Your task to perform on an android device: toggle javascript in the chrome app Image 0: 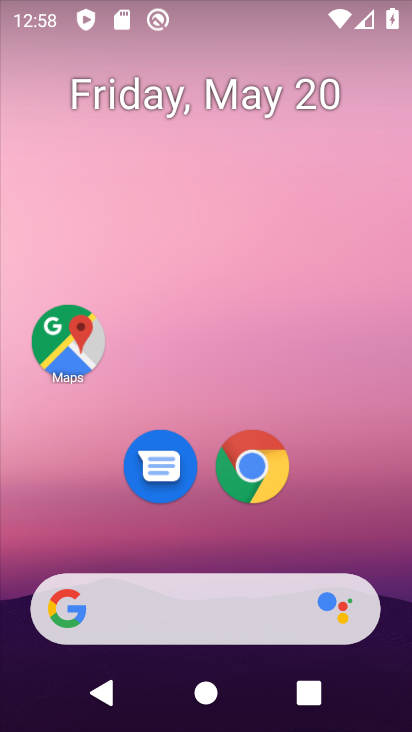
Step 0: click (249, 470)
Your task to perform on an android device: toggle javascript in the chrome app Image 1: 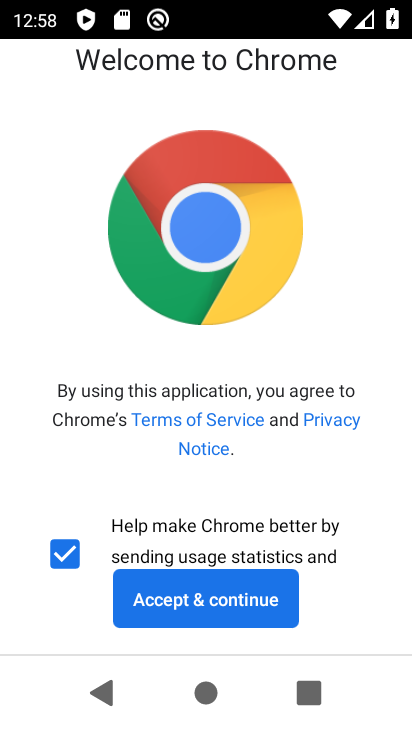
Step 1: click (225, 589)
Your task to perform on an android device: toggle javascript in the chrome app Image 2: 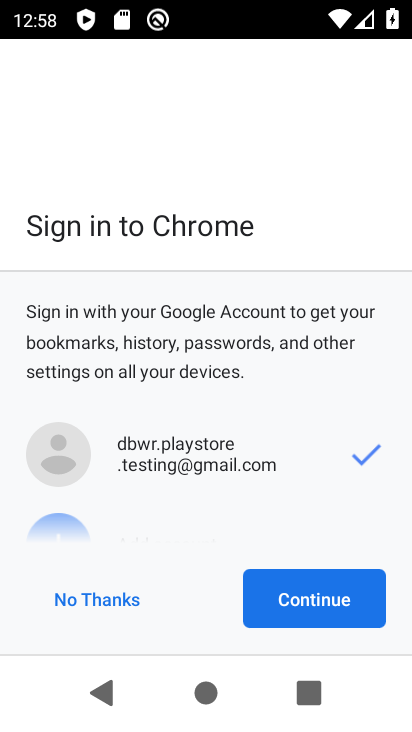
Step 2: click (318, 600)
Your task to perform on an android device: toggle javascript in the chrome app Image 3: 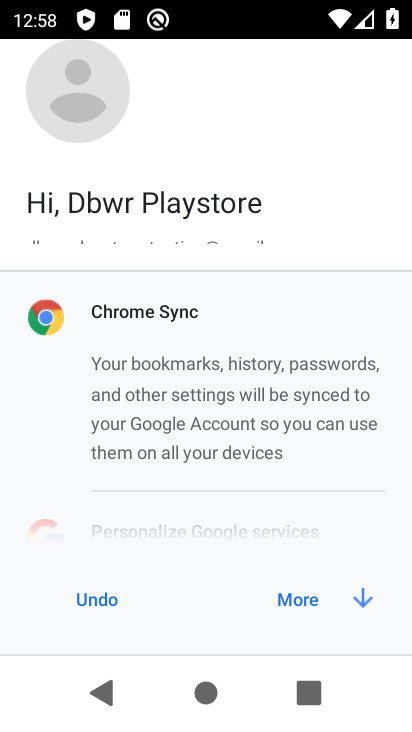
Step 3: click (322, 599)
Your task to perform on an android device: toggle javascript in the chrome app Image 4: 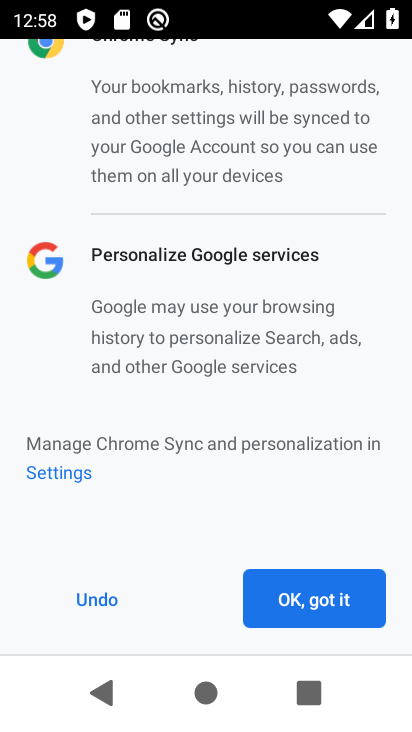
Step 4: click (322, 599)
Your task to perform on an android device: toggle javascript in the chrome app Image 5: 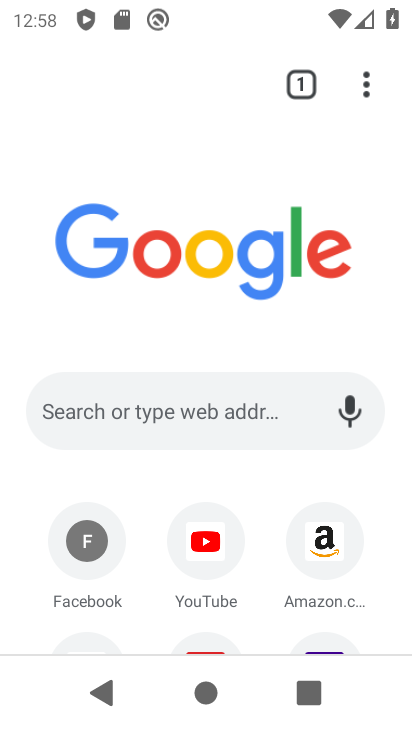
Step 5: click (371, 89)
Your task to perform on an android device: toggle javascript in the chrome app Image 6: 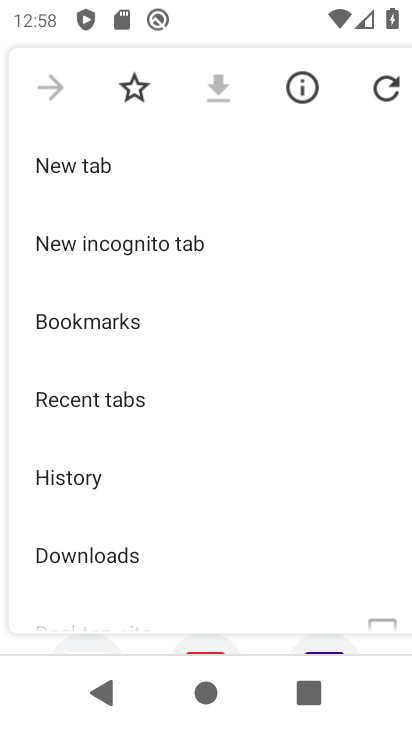
Step 6: drag from (217, 531) to (222, 253)
Your task to perform on an android device: toggle javascript in the chrome app Image 7: 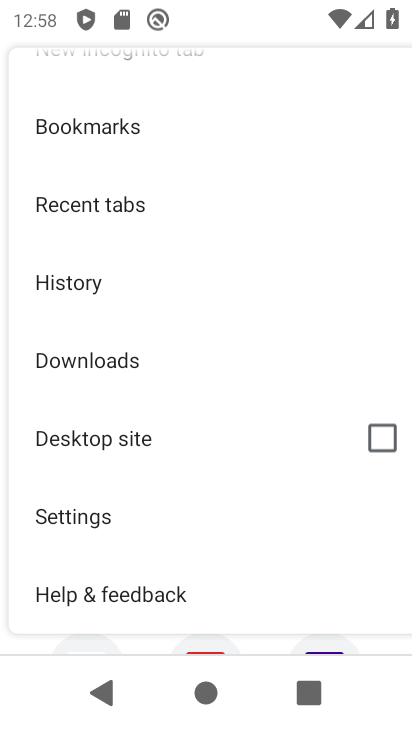
Step 7: click (159, 521)
Your task to perform on an android device: toggle javascript in the chrome app Image 8: 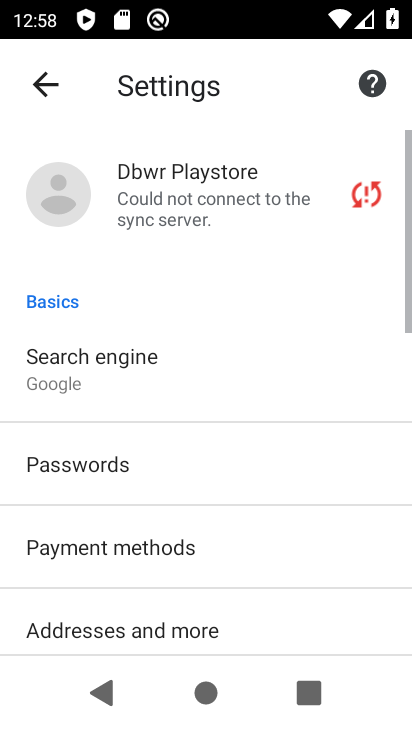
Step 8: drag from (229, 608) to (230, 238)
Your task to perform on an android device: toggle javascript in the chrome app Image 9: 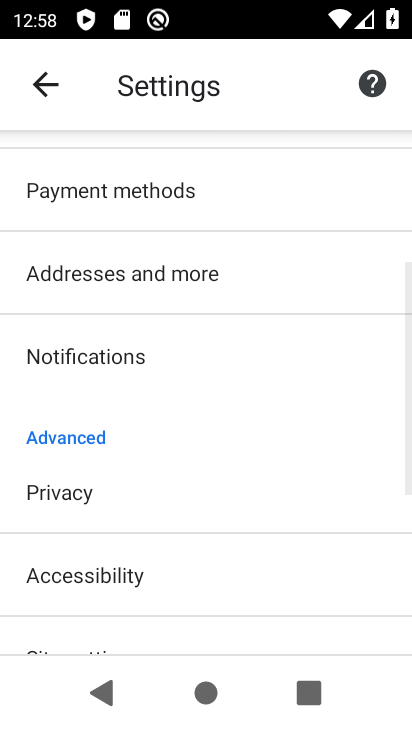
Step 9: drag from (209, 481) to (207, 276)
Your task to perform on an android device: toggle javascript in the chrome app Image 10: 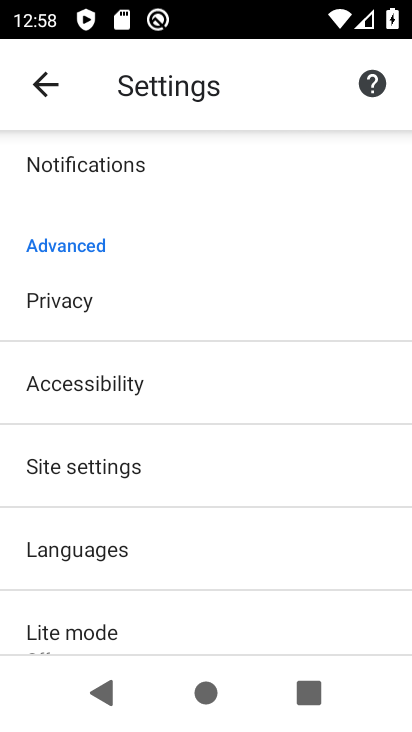
Step 10: drag from (164, 584) to (178, 299)
Your task to perform on an android device: toggle javascript in the chrome app Image 11: 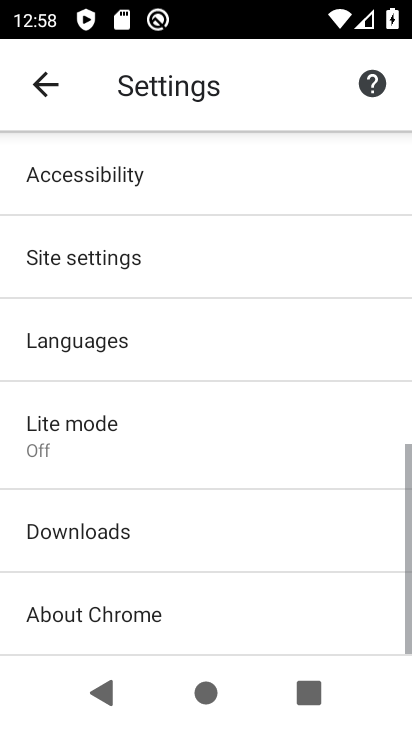
Step 11: drag from (190, 598) to (196, 407)
Your task to perform on an android device: toggle javascript in the chrome app Image 12: 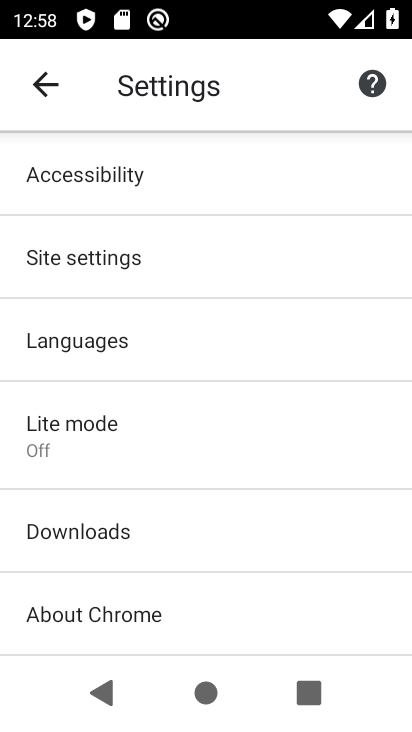
Step 12: drag from (201, 592) to (218, 309)
Your task to perform on an android device: toggle javascript in the chrome app Image 13: 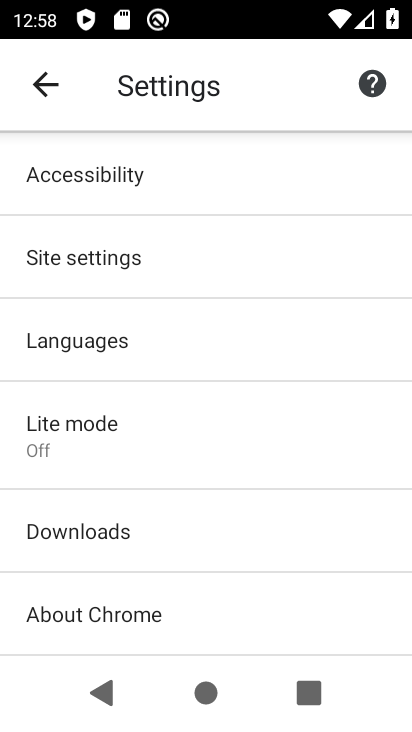
Step 13: drag from (187, 542) to (194, 316)
Your task to perform on an android device: toggle javascript in the chrome app Image 14: 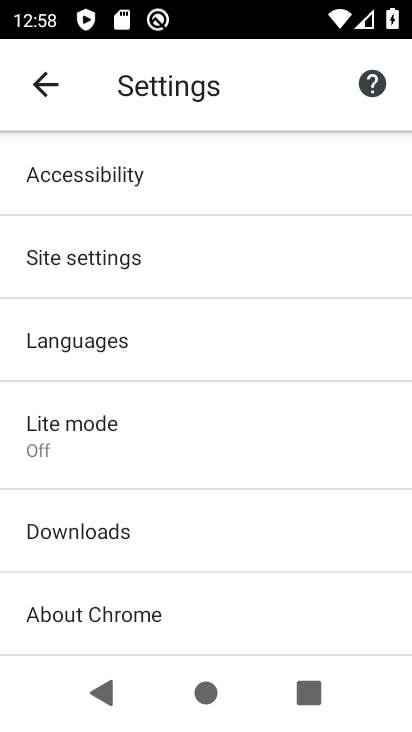
Step 14: click (196, 254)
Your task to perform on an android device: toggle javascript in the chrome app Image 15: 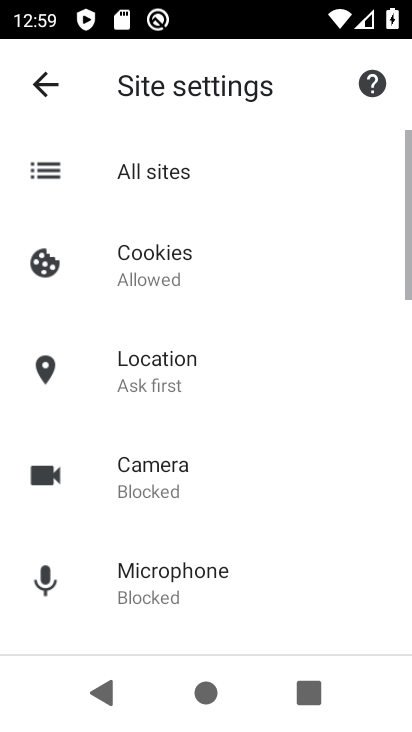
Step 15: drag from (210, 534) to (222, 273)
Your task to perform on an android device: toggle javascript in the chrome app Image 16: 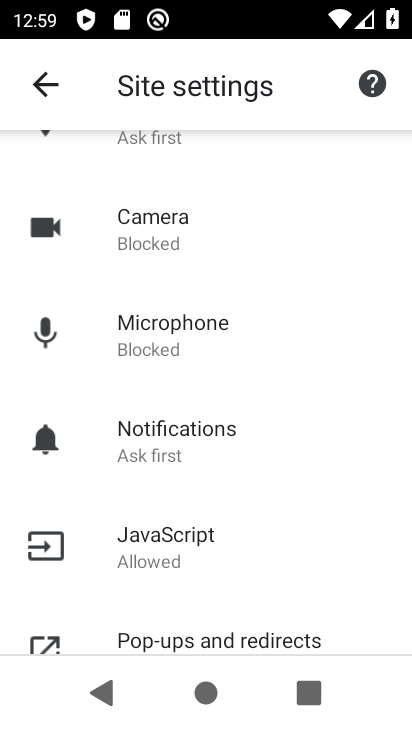
Step 16: click (209, 541)
Your task to perform on an android device: toggle javascript in the chrome app Image 17: 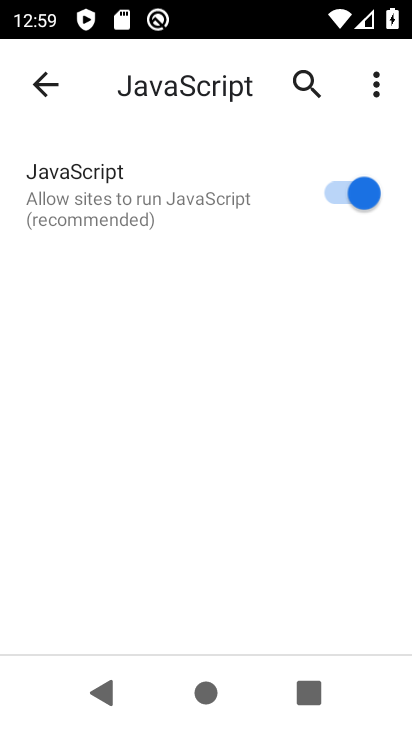
Step 17: click (325, 199)
Your task to perform on an android device: toggle javascript in the chrome app Image 18: 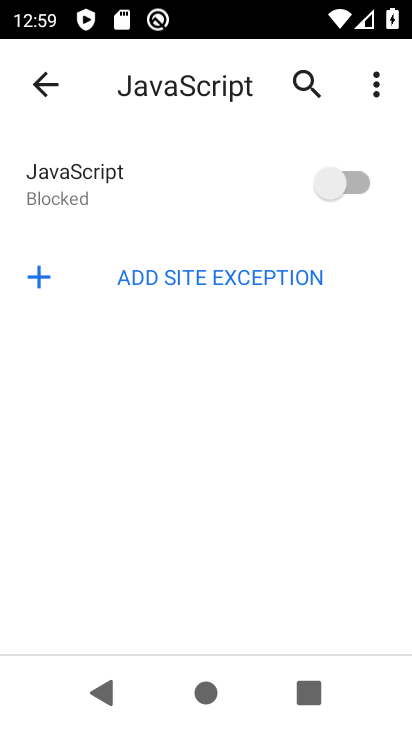
Step 18: task complete